Your task to perform on an android device: Show me my notifications Image 0: 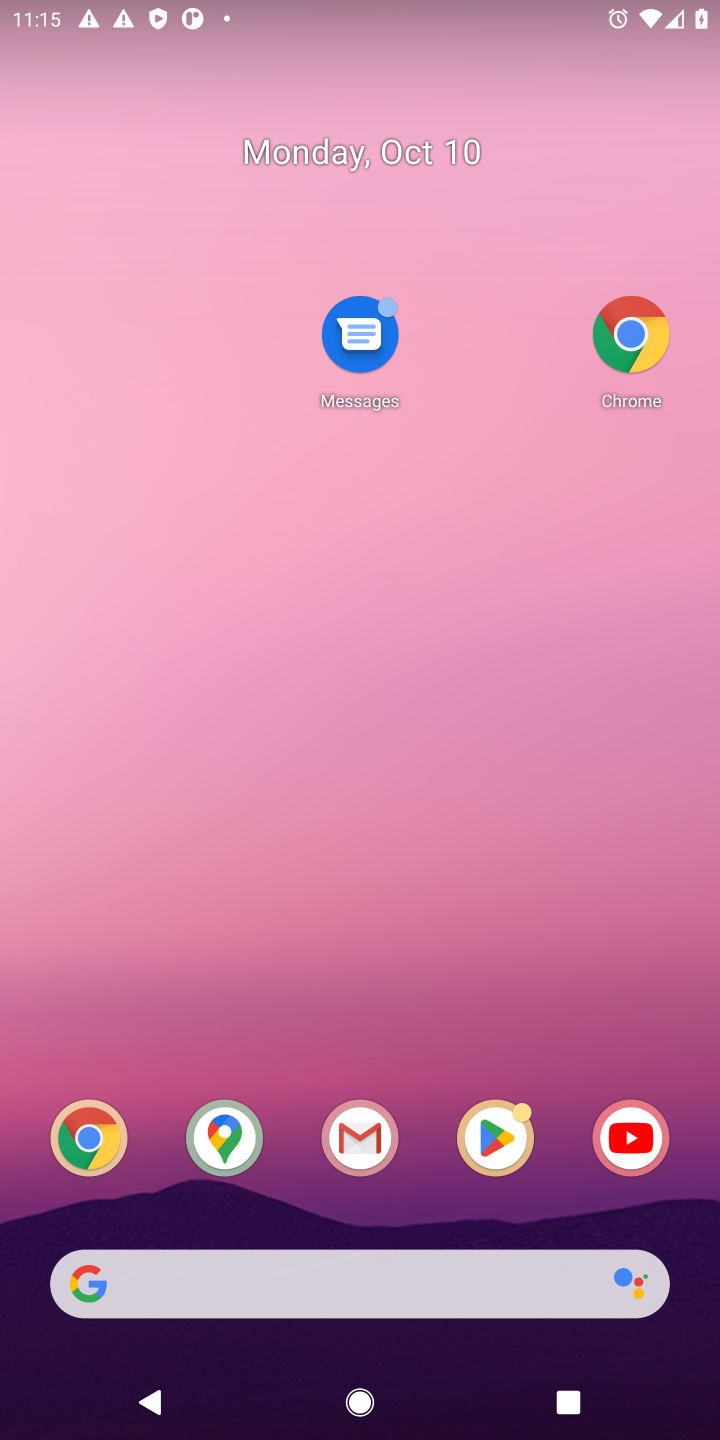
Step 0: drag from (350, 1072) to (446, 107)
Your task to perform on an android device: Show me my notifications Image 1: 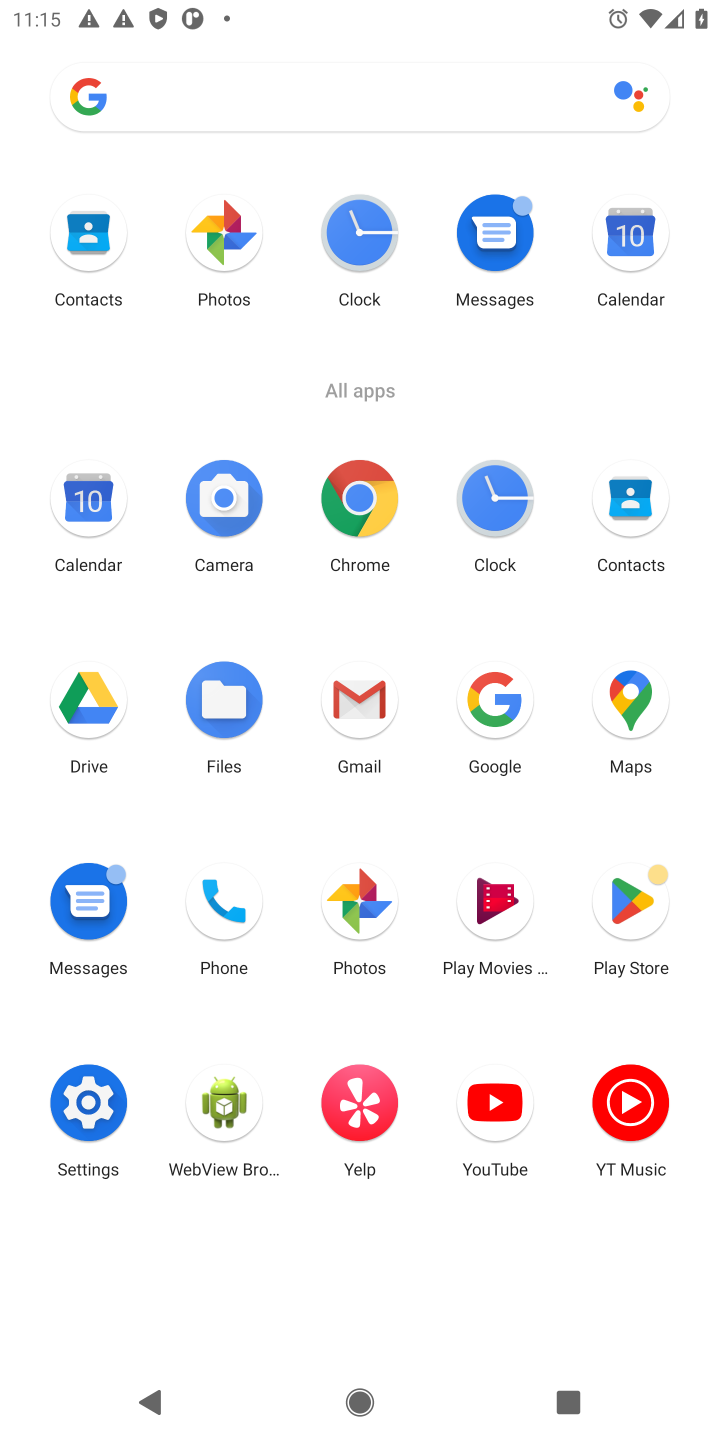
Step 1: click (632, 503)
Your task to perform on an android device: Show me my notifications Image 2: 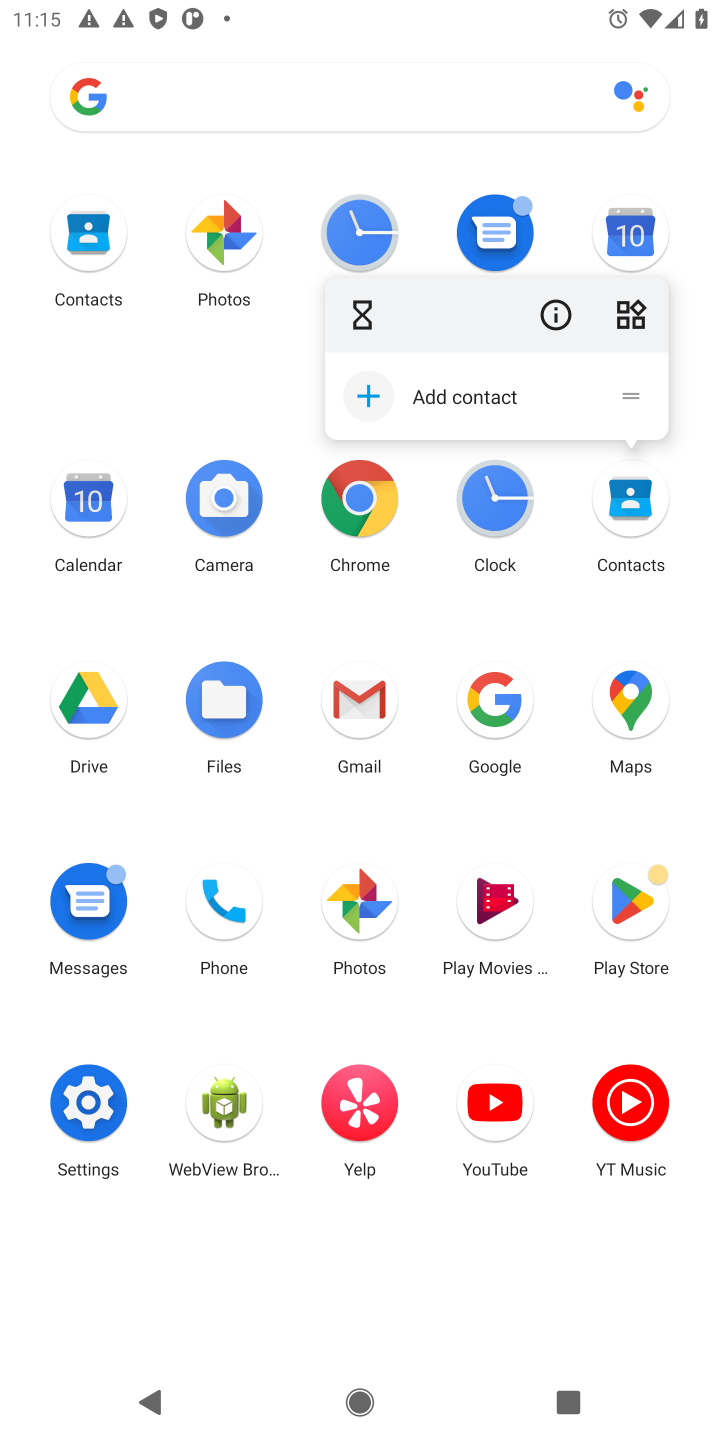
Step 2: click (629, 530)
Your task to perform on an android device: Show me my notifications Image 3: 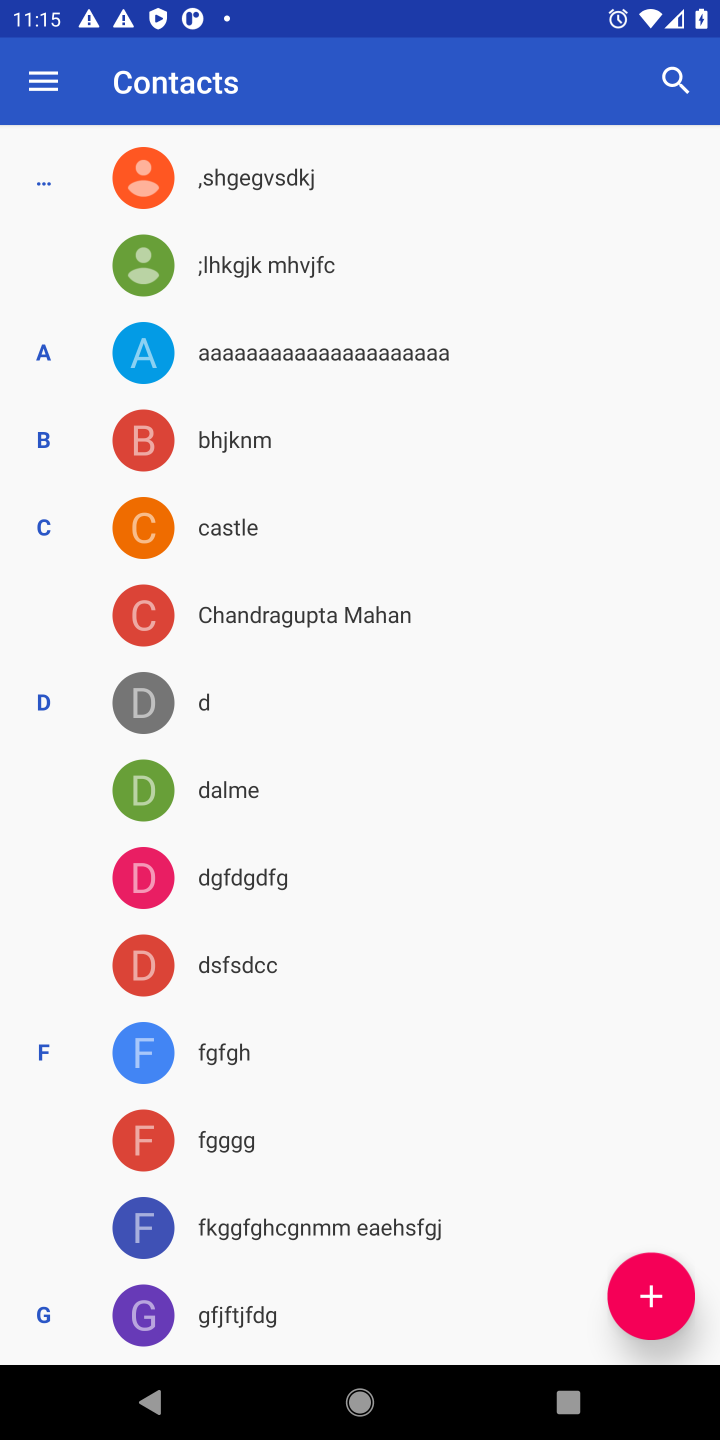
Step 3: drag from (492, 957) to (460, 173)
Your task to perform on an android device: Show me my notifications Image 4: 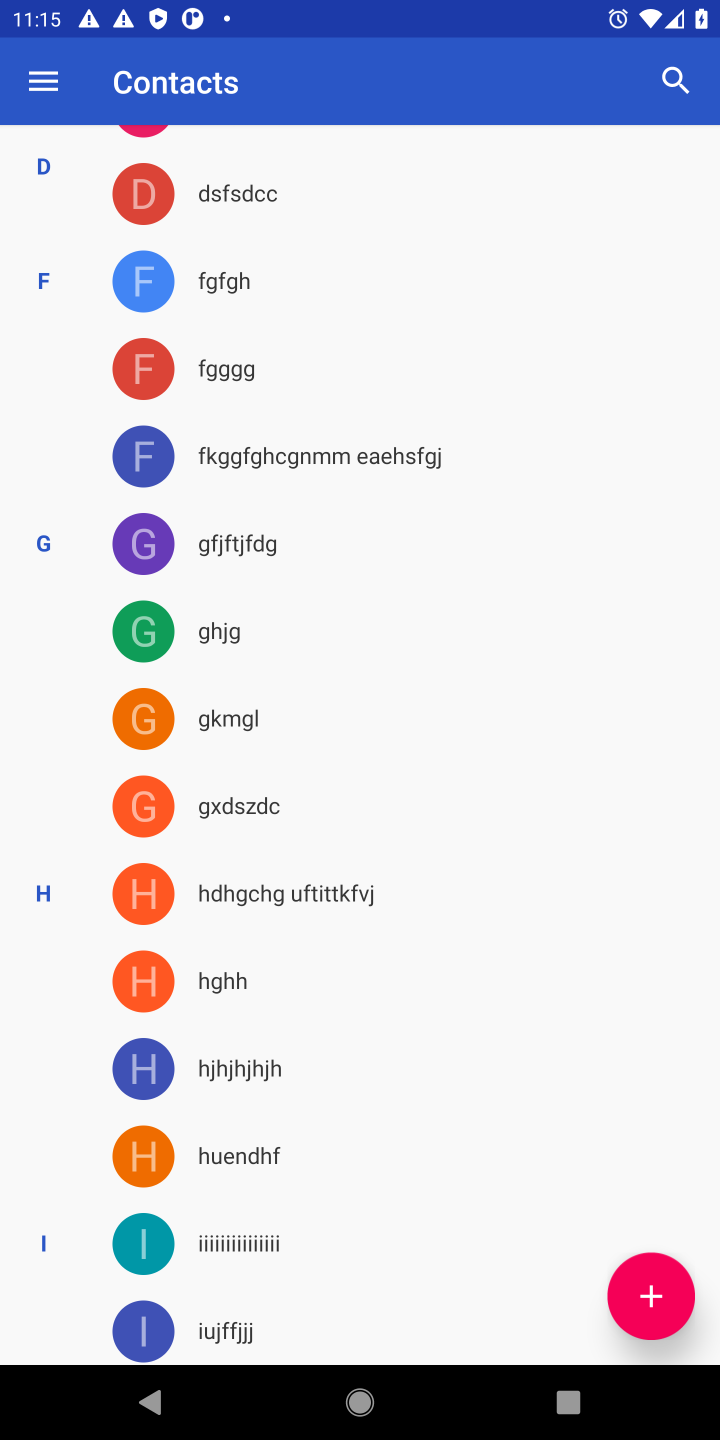
Step 4: drag from (379, 983) to (389, 630)
Your task to perform on an android device: Show me my notifications Image 5: 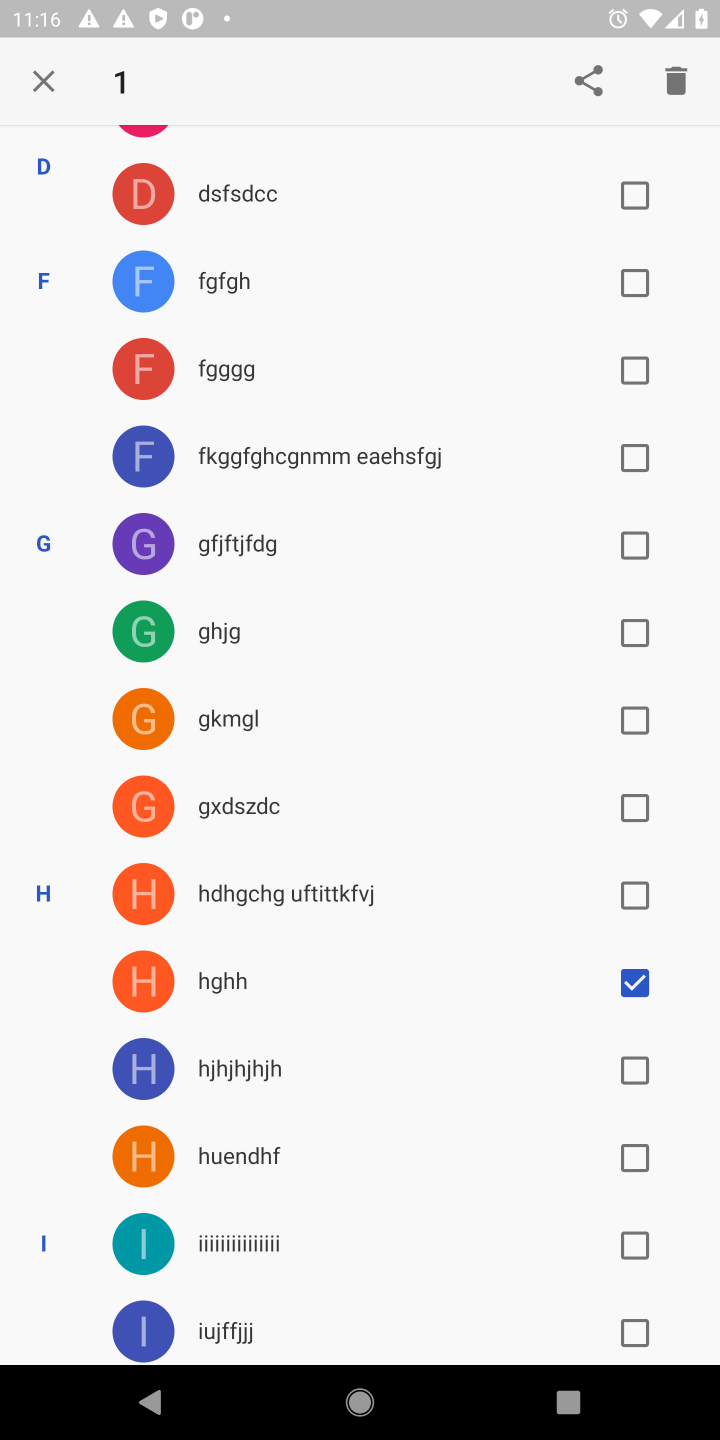
Step 5: click (638, 987)
Your task to perform on an android device: Show me my notifications Image 6: 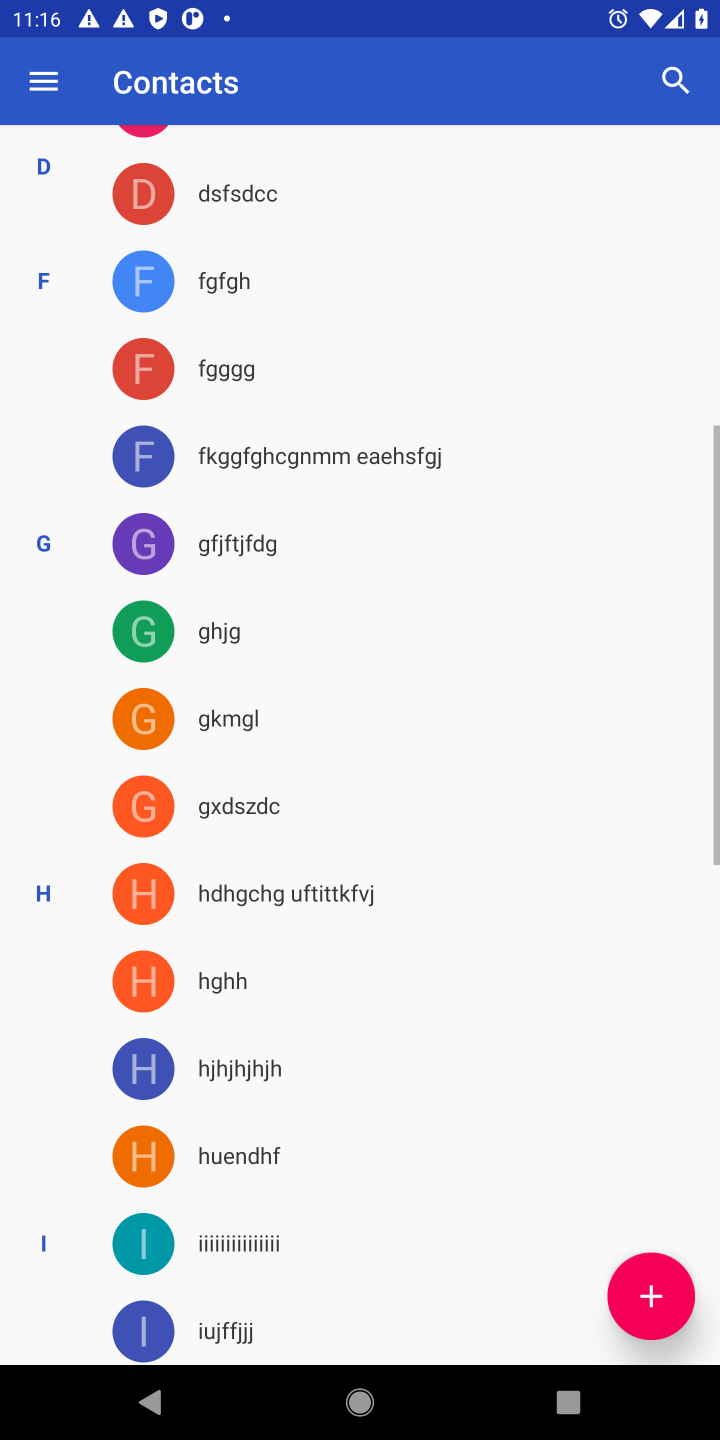
Step 6: task complete